Your task to perform on an android device: Open ESPN.com Image 0: 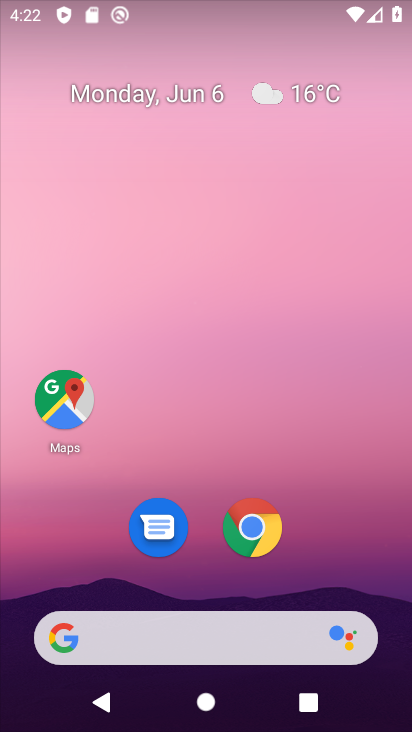
Step 0: click (241, 533)
Your task to perform on an android device: Open ESPN.com Image 1: 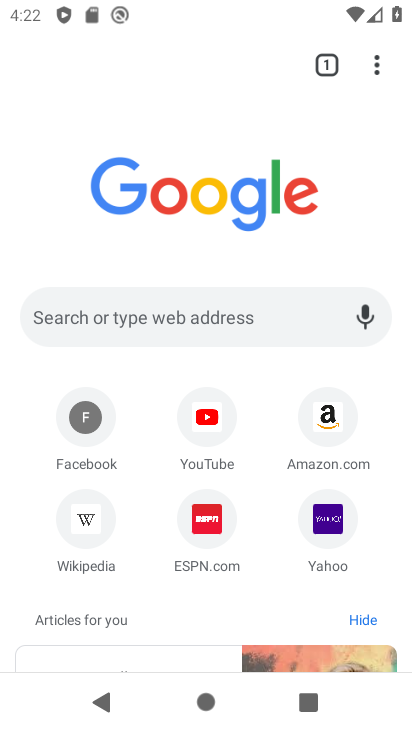
Step 1: click (205, 528)
Your task to perform on an android device: Open ESPN.com Image 2: 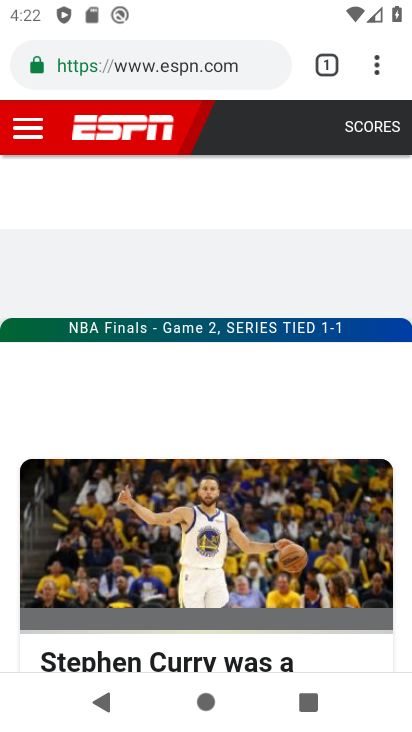
Step 2: task complete